Your task to perform on an android device: toggle javascript in the chrome app Image 0: 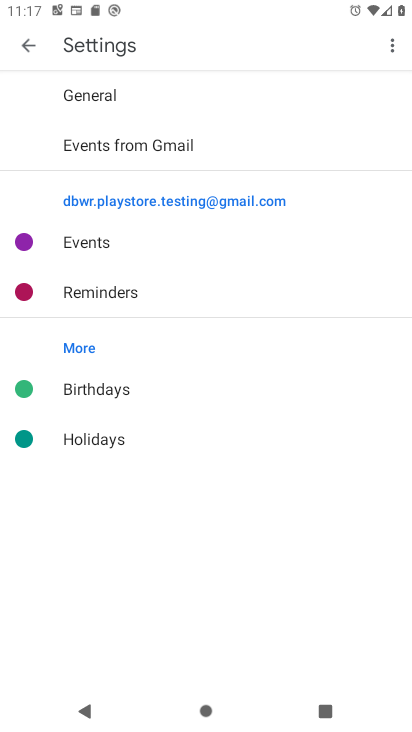
Step 0: press home button
Your task to perform on an android device: toggle javascript in the chrome app Image 1: 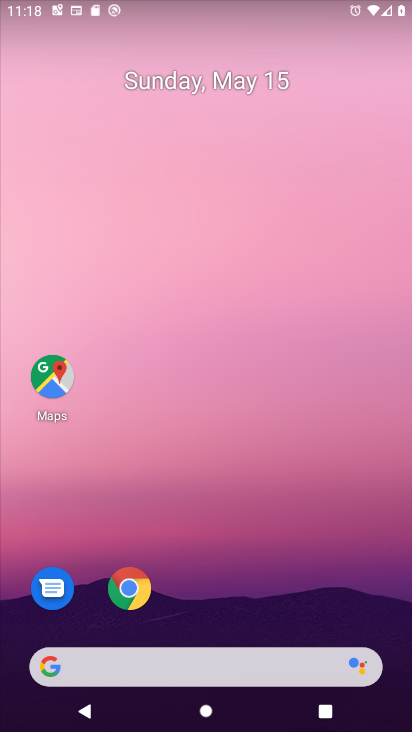
Step 1: click (129, 588)
Your task to perform on an android device: toggle javascript in the chrome app Image 2: 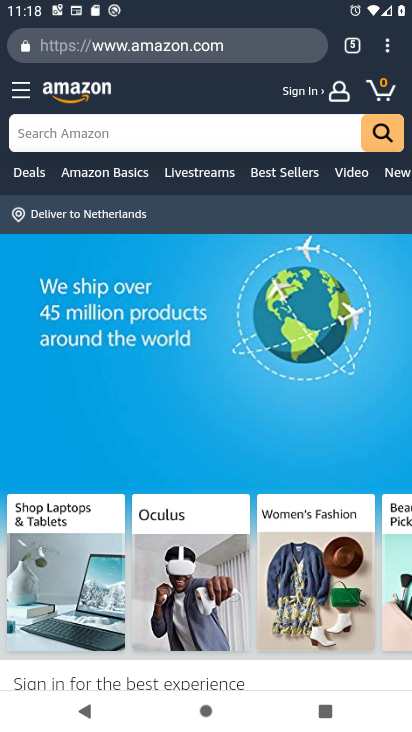
Step 2: click (392, 46)
Your task to perform on an android device: toggle javascript in the chrome app Image 3: 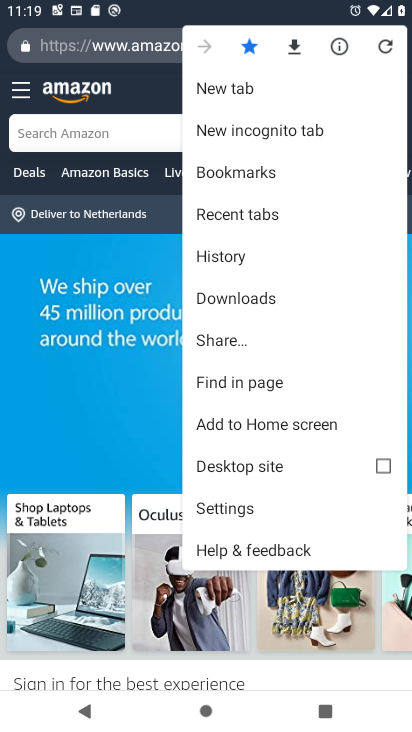
Step 3: click (255, 508)
Your task to perform on an android device: toggle javascript in the chrome app Image 4: 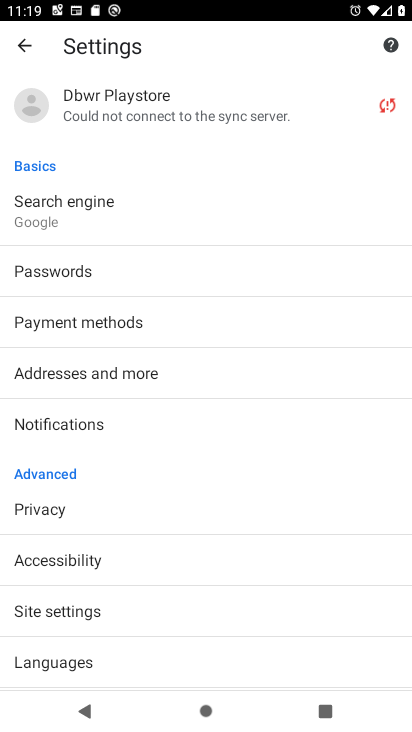
Step 4: click (72, 614)
Your task to perform on an android device: toggle javascript in the chrome app Image 5: 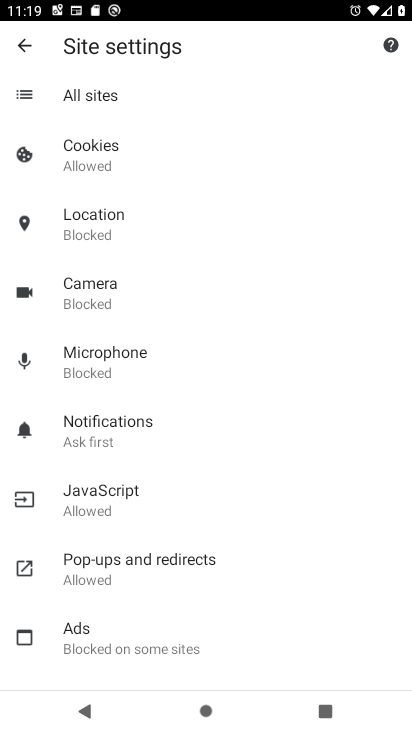
Step 5: click (96, 504)
Your task to perform on an android device: toggle javascript in the chrome app Image 6: 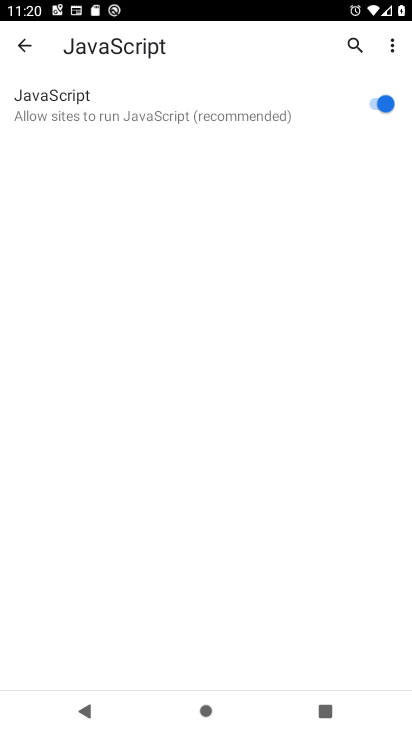
Step 6: click (374, 104)
Your task to perform on an android device: toggle javascript in the chrome app Image 7: 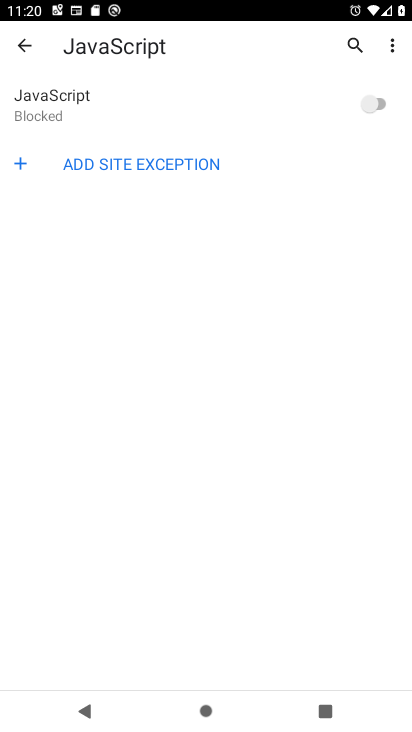
Step 7: task complete